Your task to perform on an android device: Open sound settings Image 0: 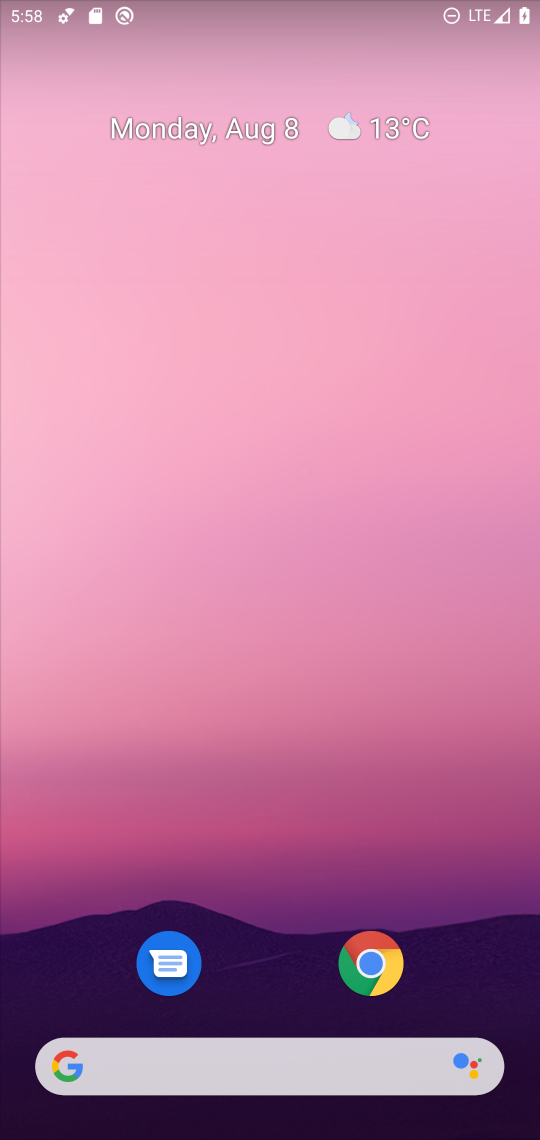
Step 0: drag from (251, 944) to (251, 233)
Your task to perform on an android device: Open sound settings Image 1: 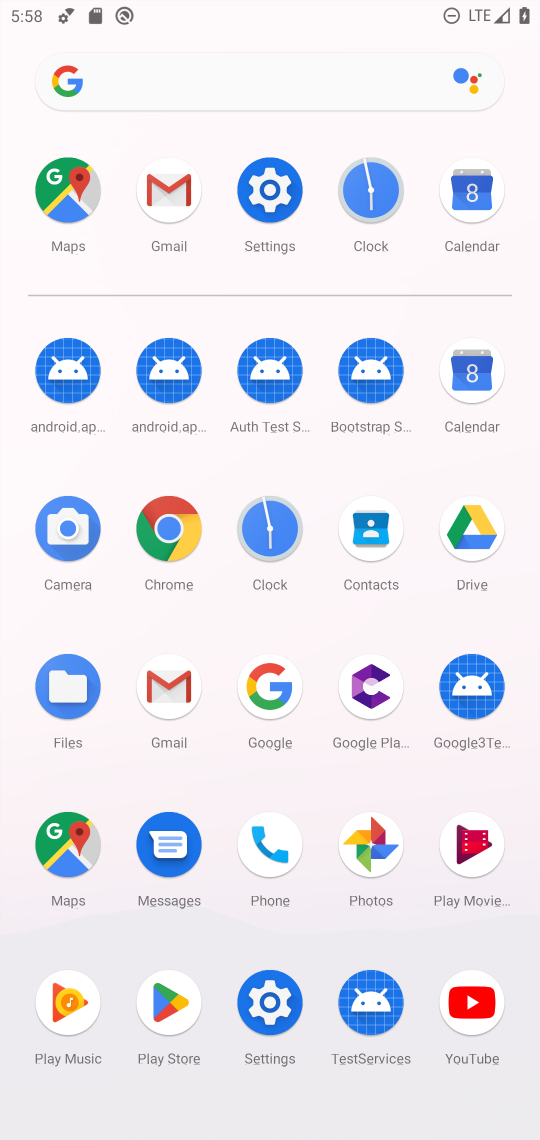
Step 1: click (265, 173)
Your task to perform on an android device: Open sound settings Image 2: 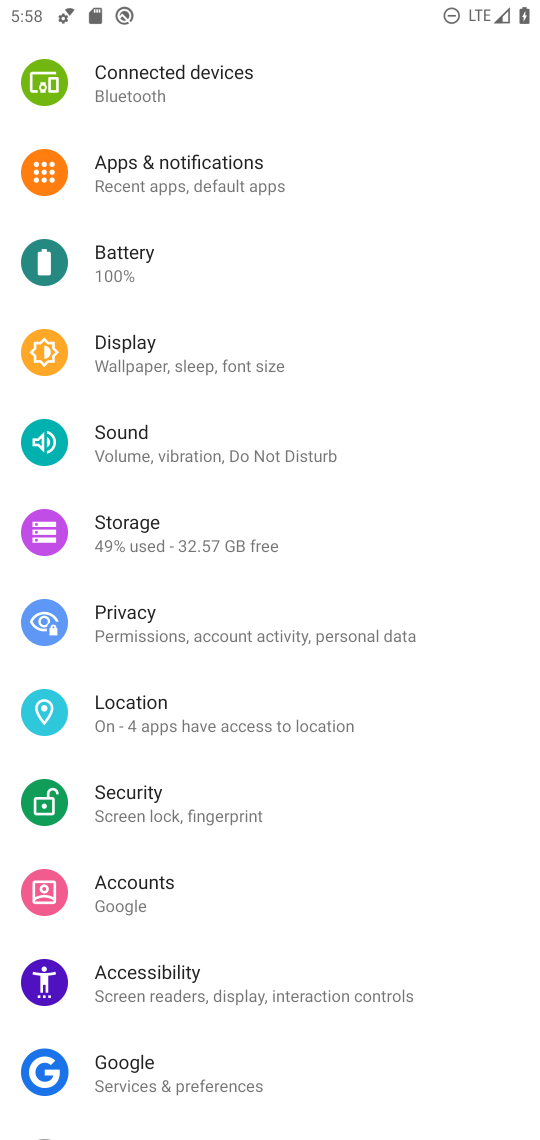
Step 2: click (116, 456)
Your task to perform on an android device: Open sound settings Image 3: 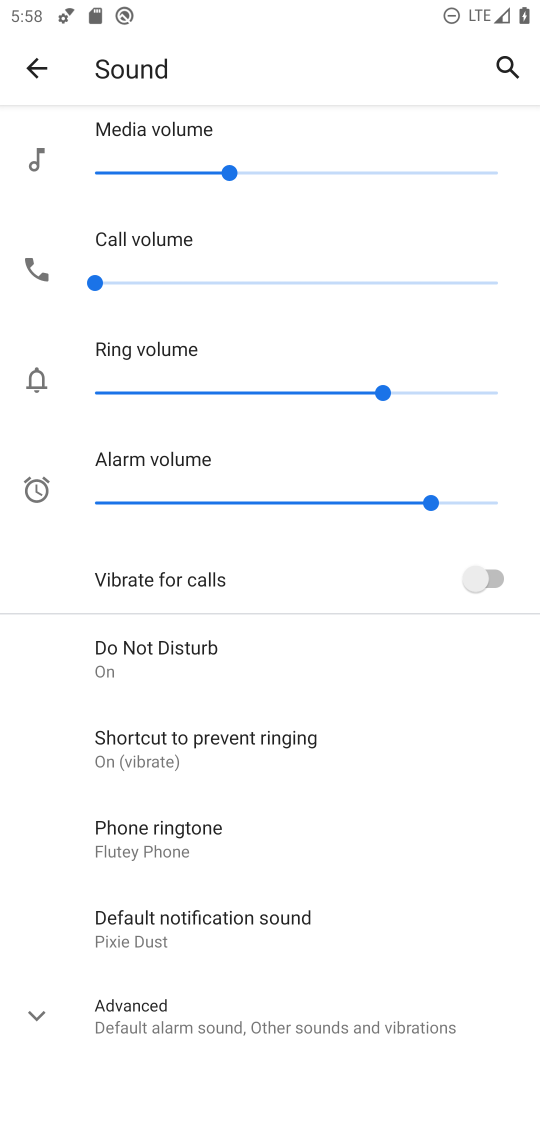
Step 3: task complete